Your task to perform on an android device: toggle pop-ups in chrome Image 0: 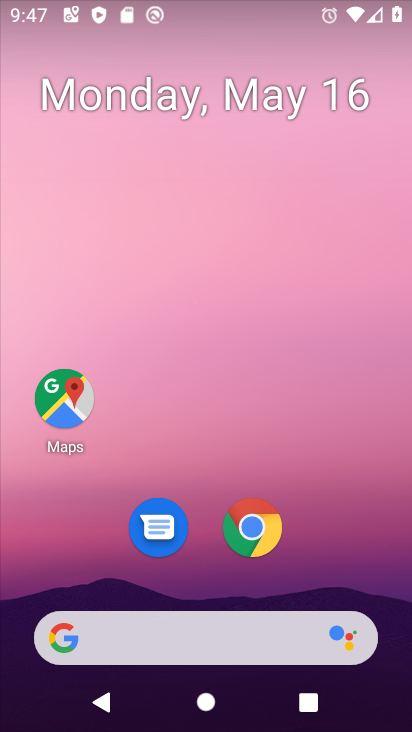
Step 0: click (251, 535)
Your task to perform on an android device: toggle pop-ups in chrome Image 1: 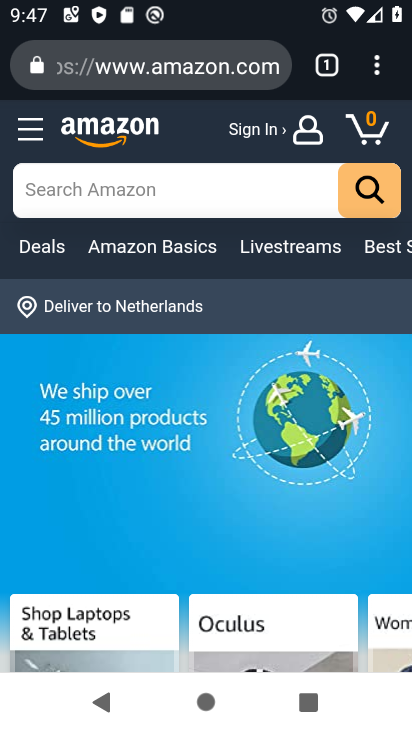
Step 1: click (378, 72)
Your task to perform on an android device: toggle pop-ups in chrome Image 2: 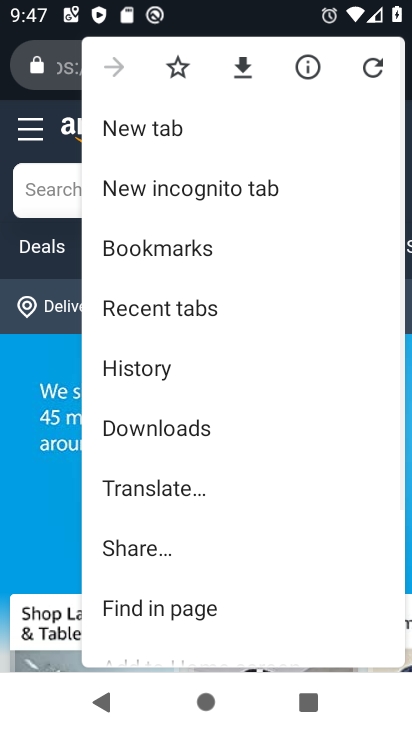
Step 2: drag from (231, 535) to (243, 259)
Your task to perform on an android device: toggle pop-ups in chrome Image 3: 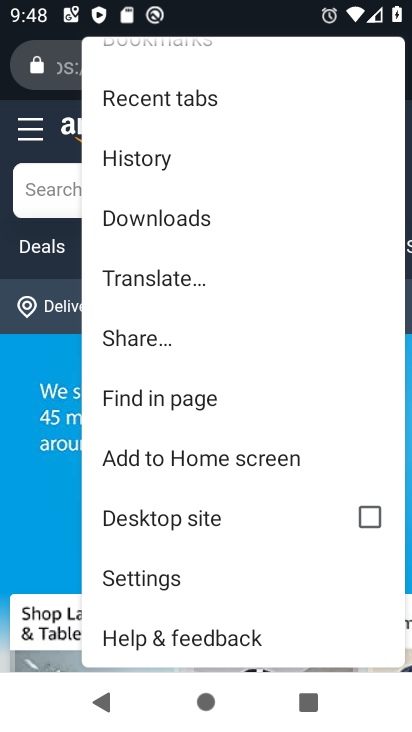
Step 3: click (147, 575)
Your task to perform on an android device: toggle pop-ups in chrome Image 4: 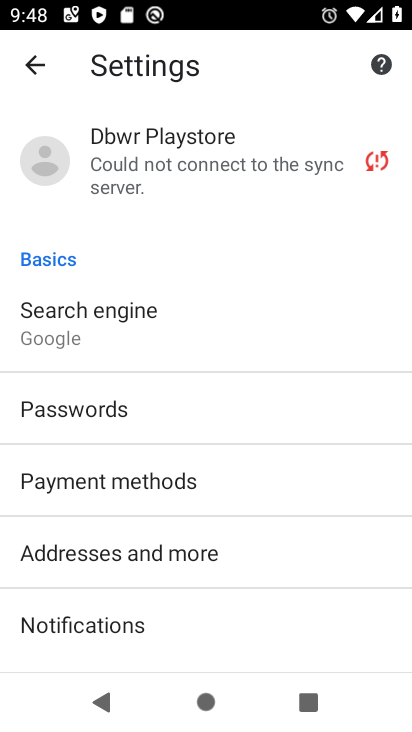
Step 4: drag from (234, 580) to (240, 240)
Your task to perform on an android device: toggle pop-ups in chrome Image 5: 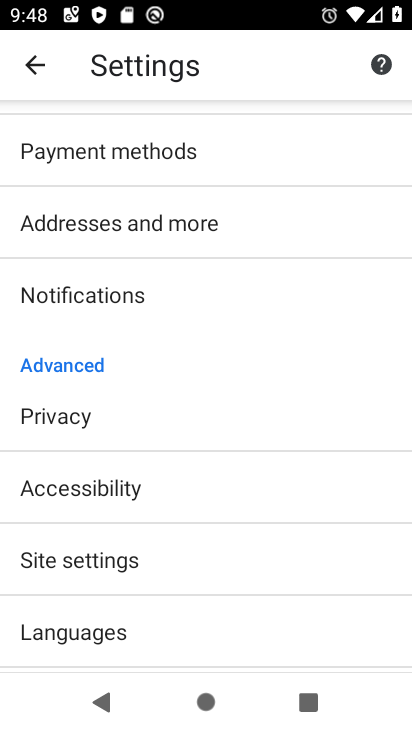
Step 5: click (147, 561)
Your task to perform on an android device: toggle pop-ups in chrome Image 6: 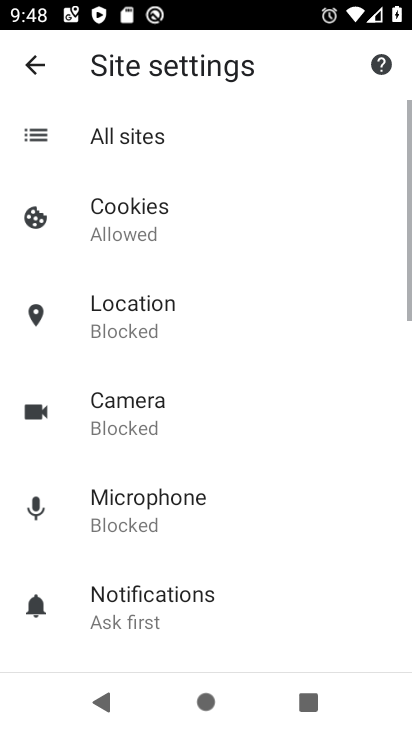
Step 6: drag from (259, 563) to (260, 282)
Your task to perform on an android device: toggle pop-ups in chrome Image 7: 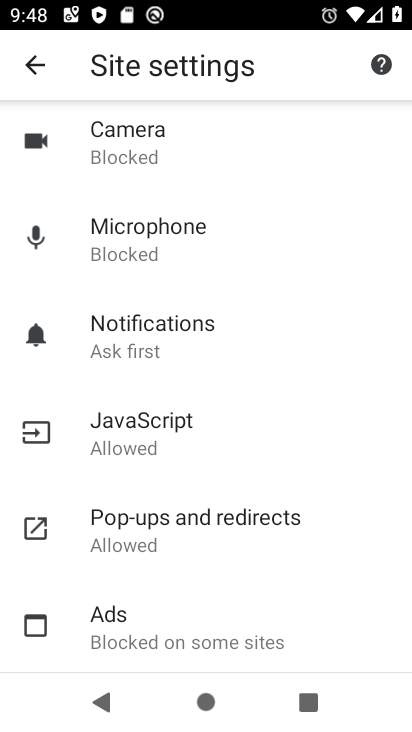
Step 7: click (155, 513)
Your task to perform on an android device: toggle pop-ups in chrome Image 8: 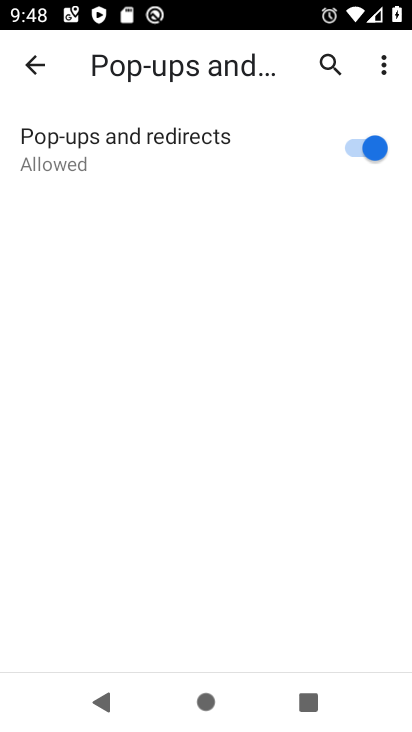
Step 8: click (369, 139)
Your task to perform on an android device: toggle pop-ups in chrome Image 9: 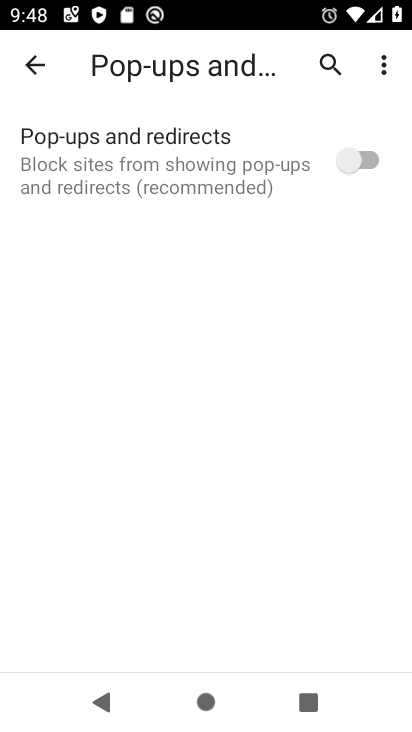
Step 9: task complete